Your task to perform on an android device: open app "Microsoft Outlook" (install if not already installed) Image 0: 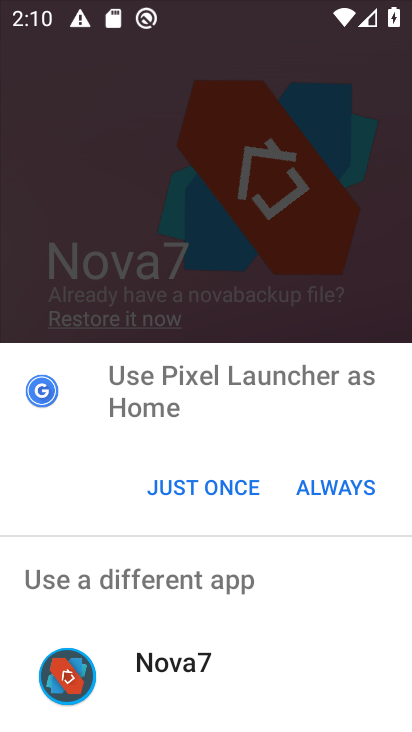
Step 0: task complete